Your task to perform on an android device: What's the news about the US? Image 0: 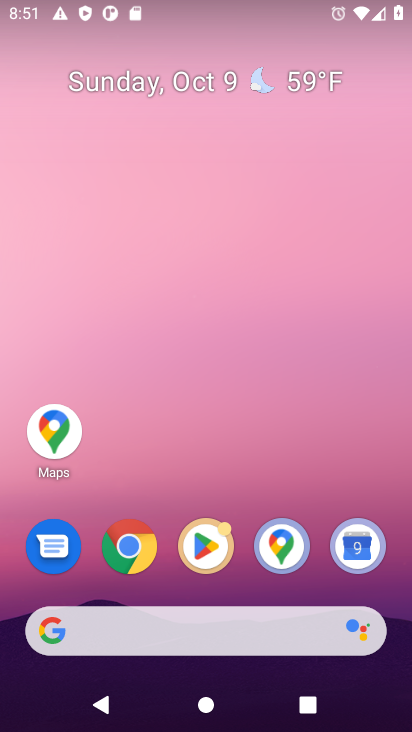
Step 0: click (304, 431)
Your task to perform on an android device: What's the news about the US? Image 1: 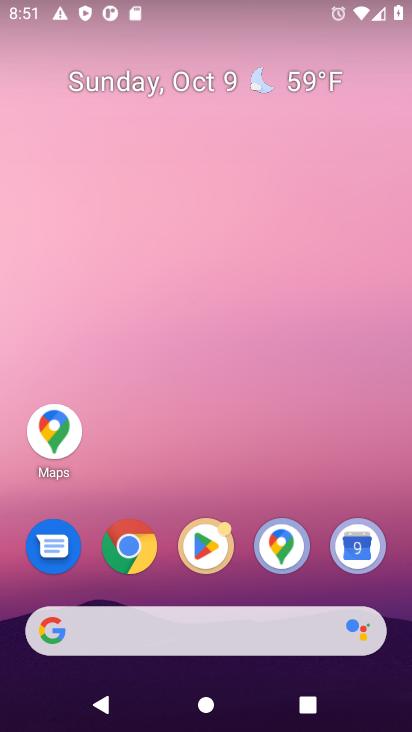
Step 1: click (137, 550)
Your task to perform on an android device: What's the news about the US? Image 2: 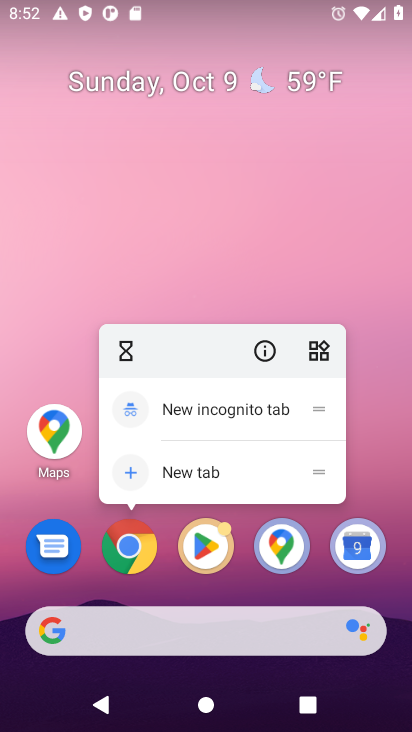
Step 2: click (111, 552)
Your task to perform on an android device: What's the news about the US? Image 3: 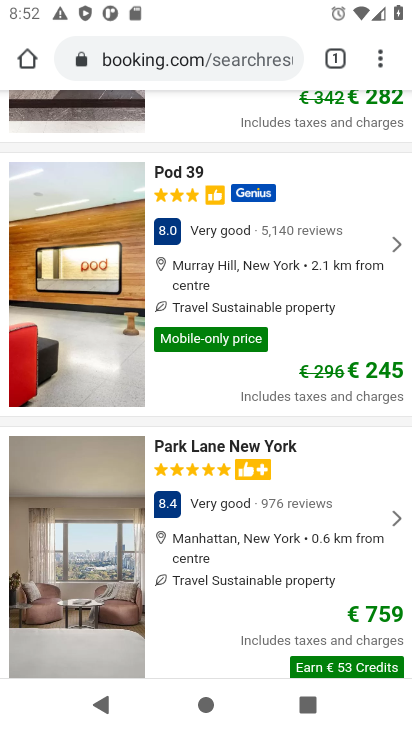
Step 3: click (160, 53)
Your task to perform on an android device: What's the news about the US? Image 4: 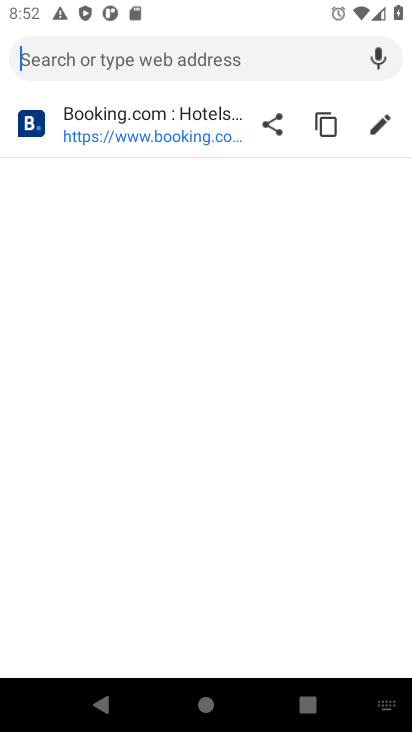
Step 4: type "news about the US"
Your task to perform on an android device: What's the news about the US? Image 5: 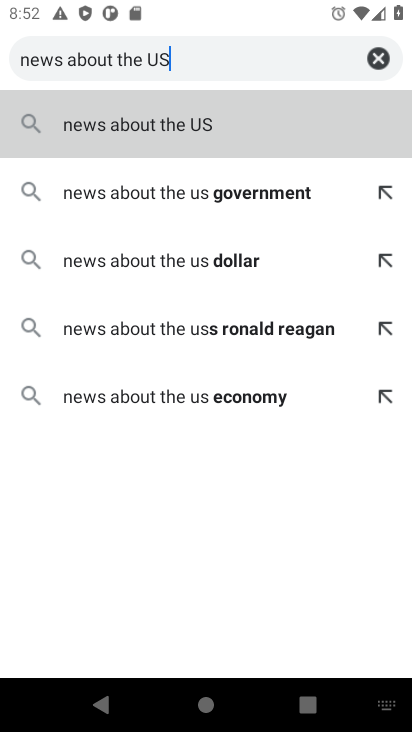
Step 5: type ""
Your task to perform on an android device: What's the news about the US? Image 6: 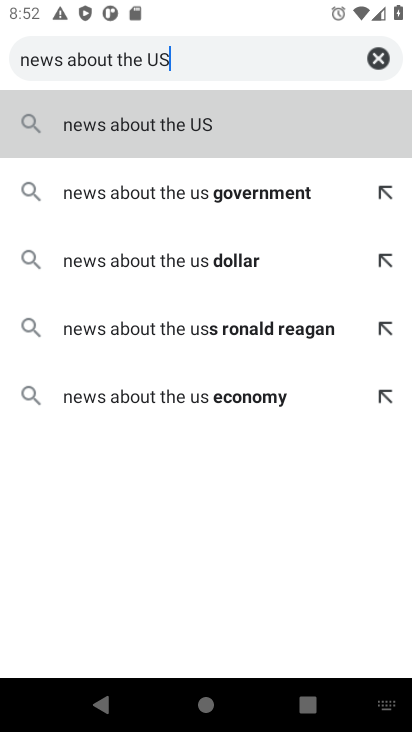
Step 6: press enter
Your task to perform on an android device: What's the news about the US? Image 7: 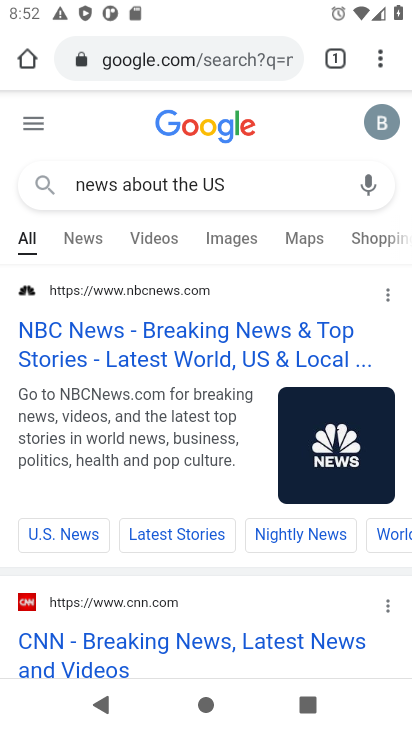
Step 7: click (82, 241)
Your task to perform on an android device: What's the news about the US? Image 8: 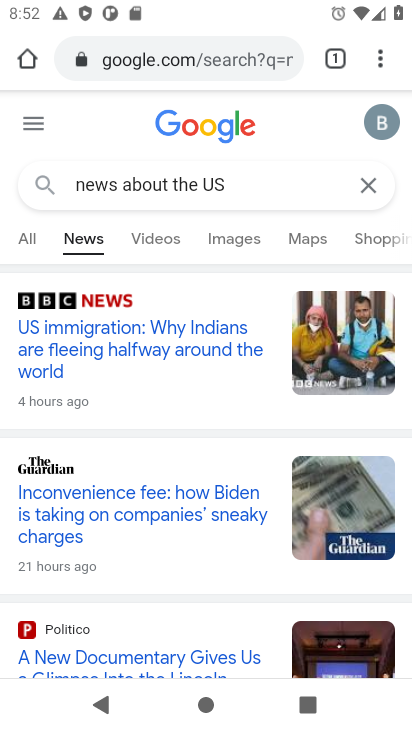
Step 8: task complete